Your task to perform on an android device: turn off location Image 0: 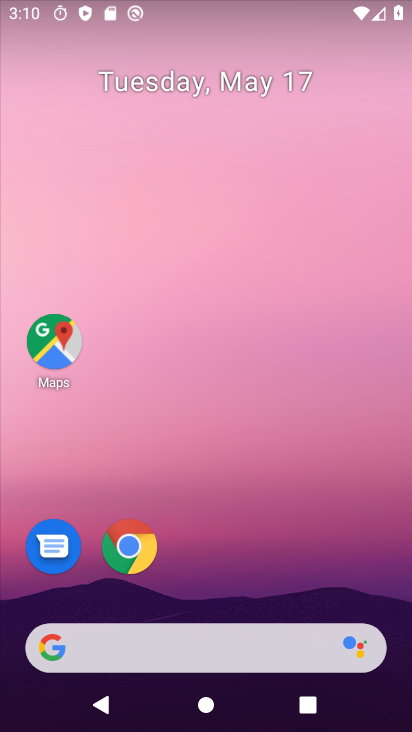
Step 0: drag from (238, 657) to (236, 226)
Your task to perform on an android device: turn off location Image 1: 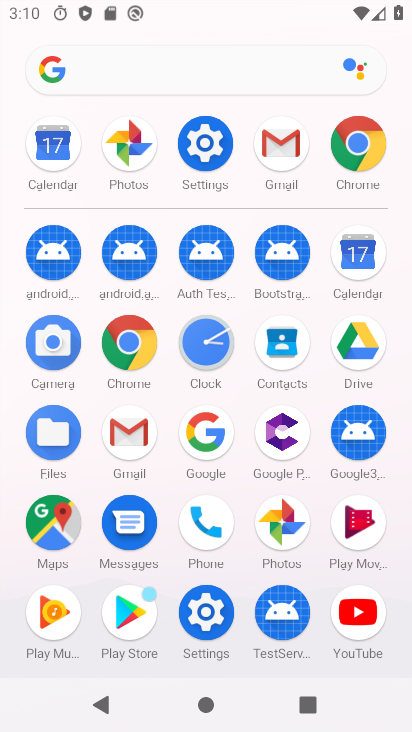
Step 1: click (203, 162)
Your task to perform on an android device: turn off location Image 2: 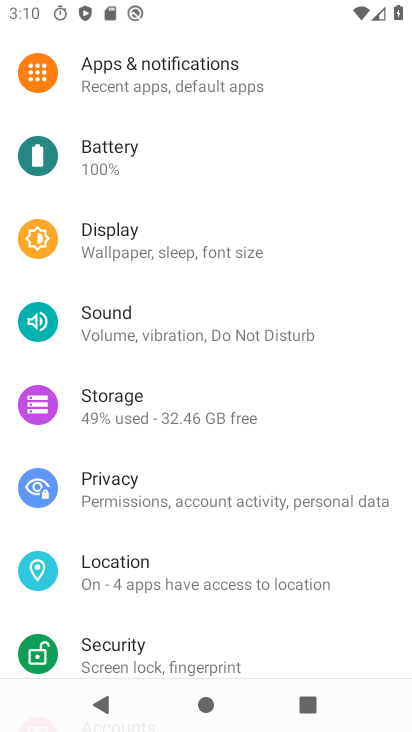
Step 2: drag from (206, 499) to (222, 304)
Your task to perform on an android device: turn off location Image 3: 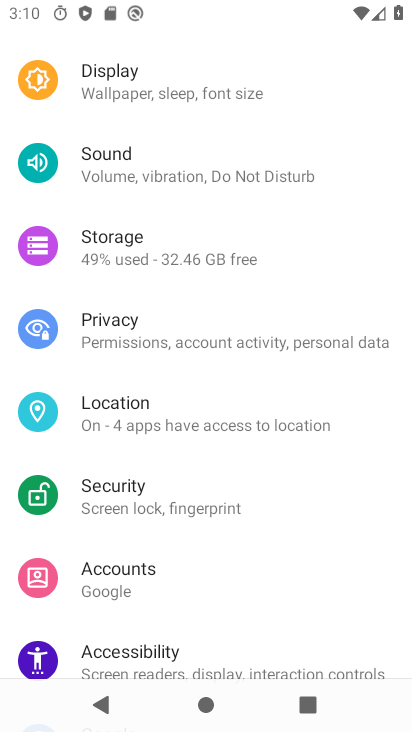
Step 3: drag from (222, 363) to (217, 607)
Your task to perform on an android device: turn off location Image 4: 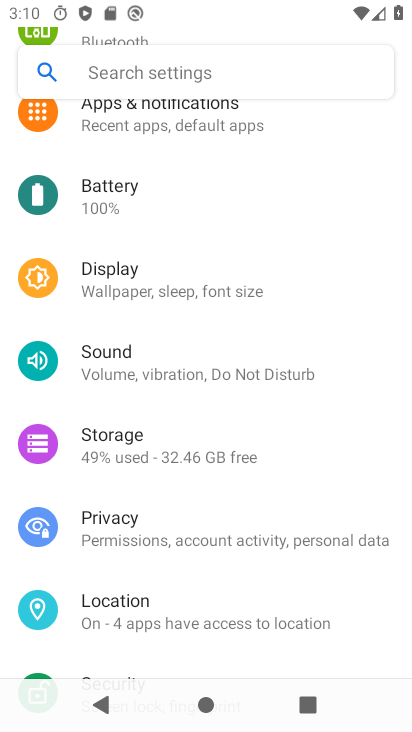
Step 4: click (208, 614)
Your task to perform on an android device: turn off location Image 5: 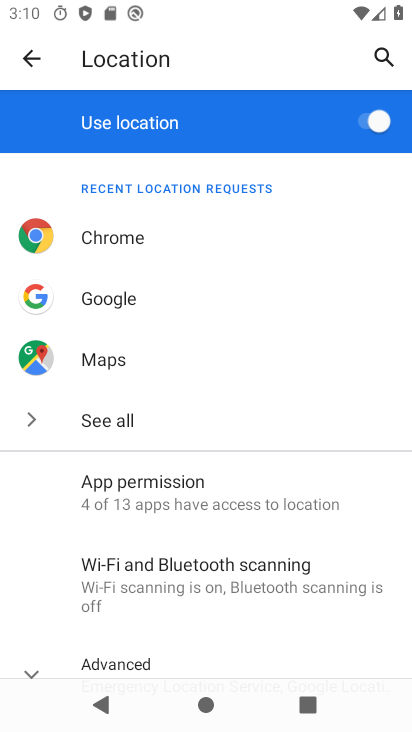
Step 5: click (370, 125)
Your task to perform on an android device: turn off location Image 6: 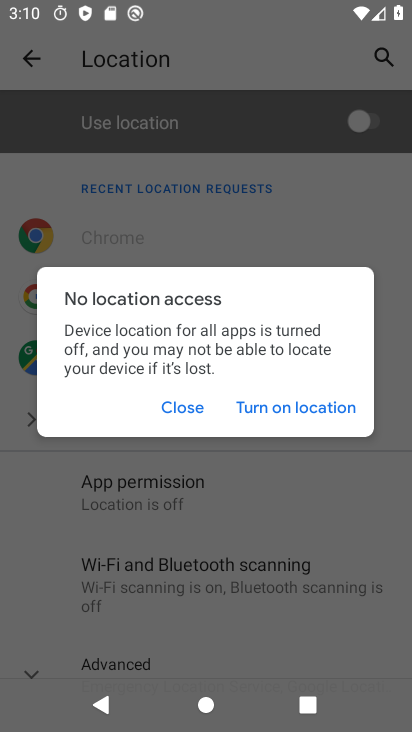
Step 6: click (181, 410)
Your task to perform on an android device: turn off location Image 7: 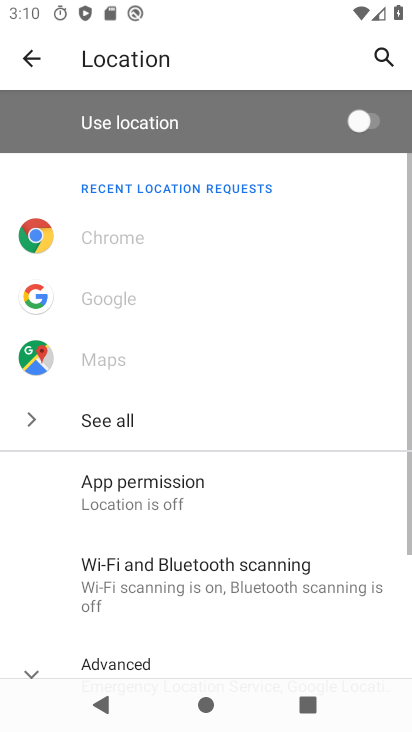
Step 7: task complete